Your task to perform on an android device: change timer sound Image 0: 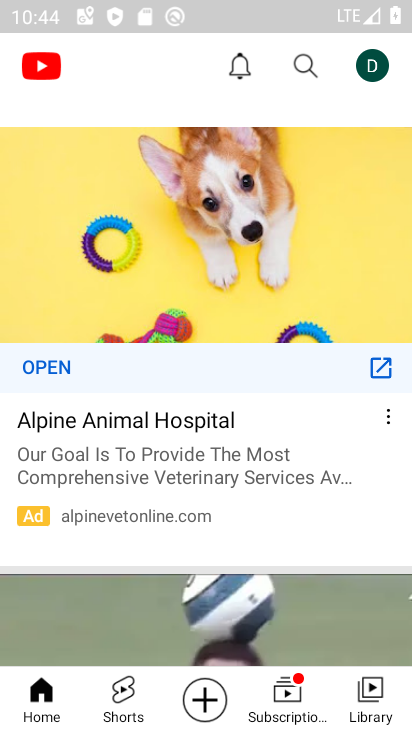
Step 0: press home button
Your task to perform on an android device: change timer sound Image 1: 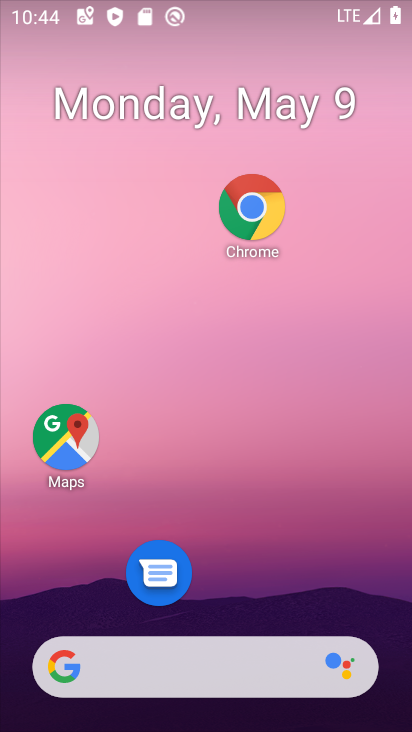
Step 1: drag from (166, 575) to (231, 168)
Your task to perform on an android device: change timer sound Image 2: 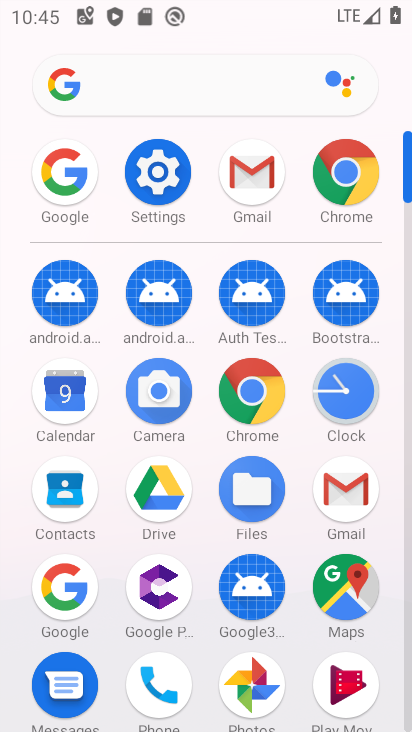
Step 2: click (362, 395)
Your task to perform on an android device: change timer sound Image 3: 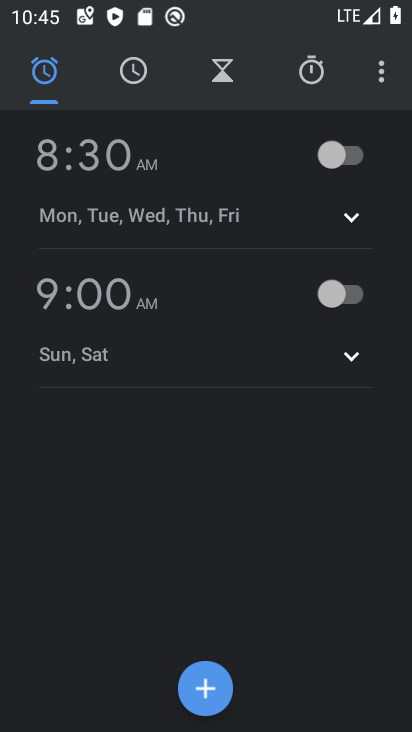
Step 3: click (314, 78)
Your task to perform on an android device: change timer sound Image 4: 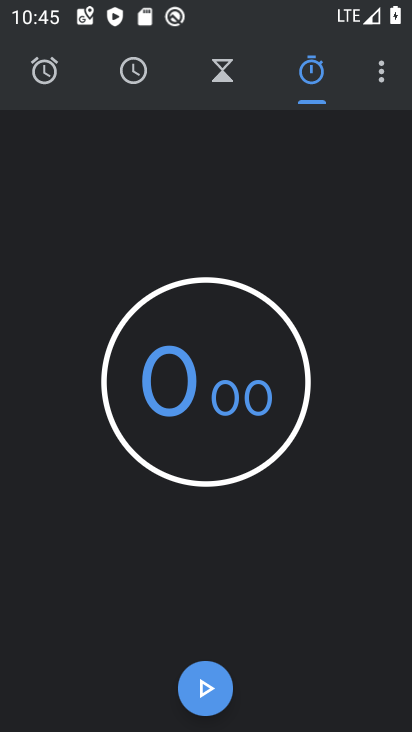
Step 4: click (190, 692)
Your task to perform on an android device: change timer sound Image 5: 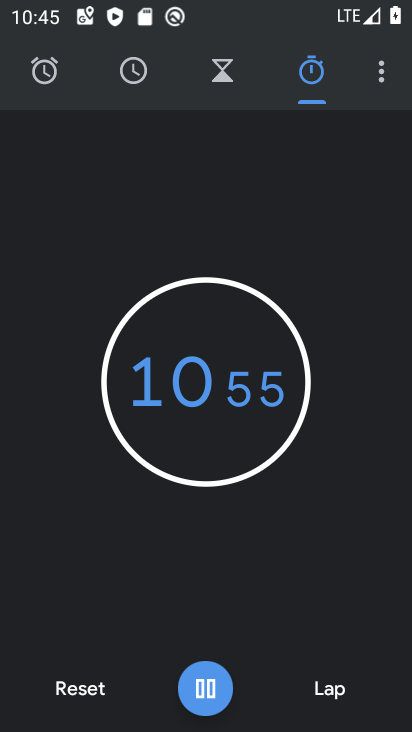
Step 5: click (204, 686)
Your task to perform on an android device: change timer sound Image 6: 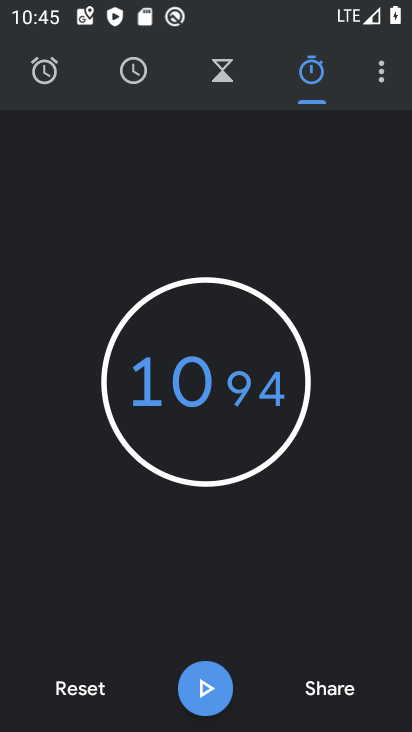
Step 6: task complete